Your task to perform on an android device: Search for "asus rog" on newegg, select the first entry, and add it to the cart. Image 0: 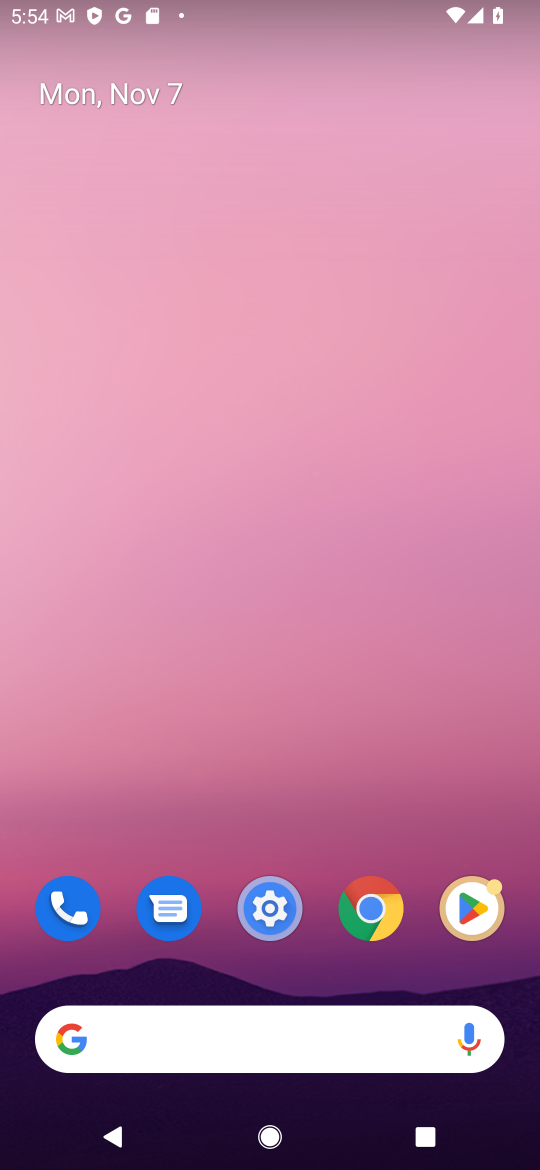
Step 0: click (253, 1036)
Your task to perform on an android device: Search for "asus rog" on newegg, select the first entry, and add it to the cart. Image 1: 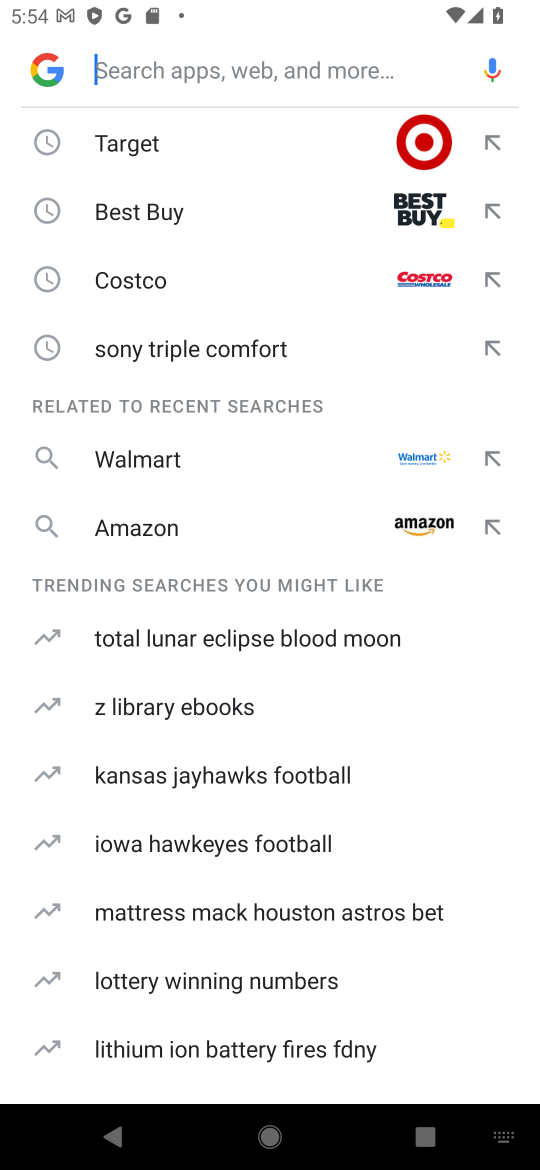
Step 1: type "asus rog"
Your task to perform on an android device: Search for "asus rog" on newegg, select the first entry, and add it to the cart. Image 2: 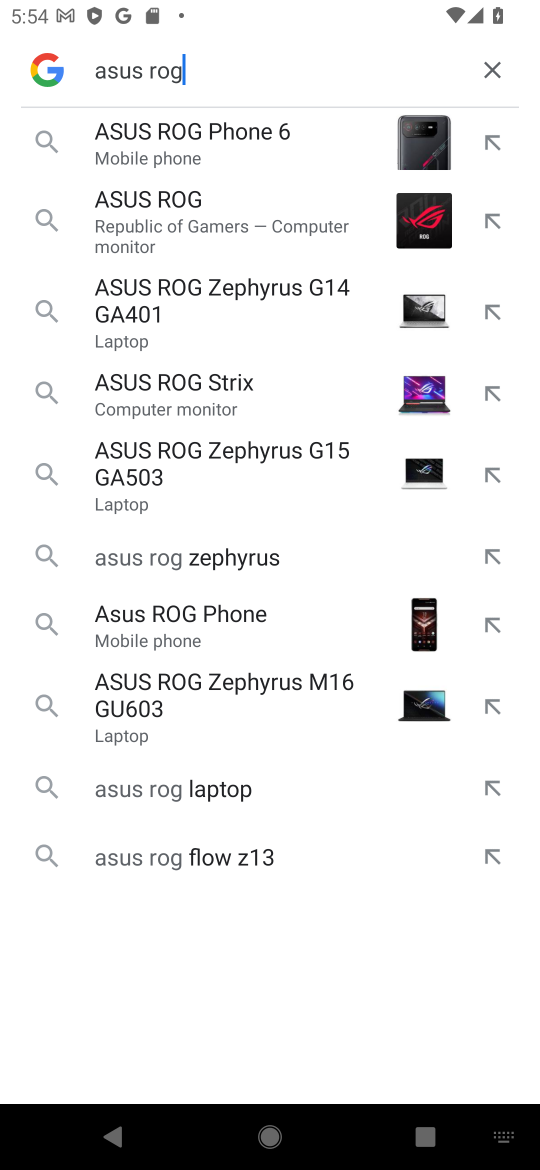
Step 2: click (256, 133)
Your task to perform on an android device: Search for "asus rog" on newegg, select the first entry, and add it to the cart. Image 3: 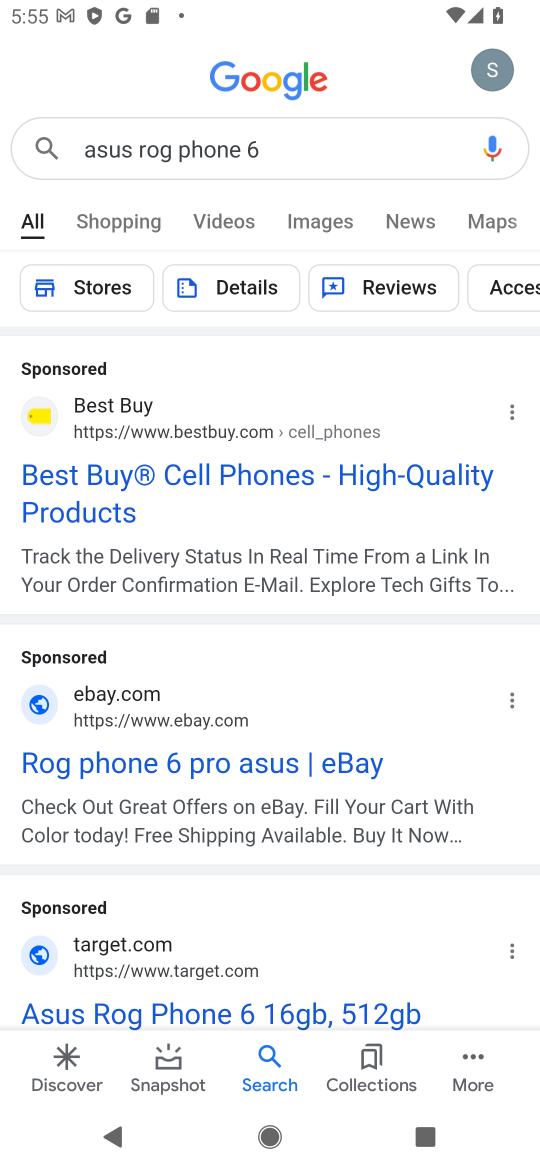
Step 3: click (100, 511)
Your task to perform on an android device: Search for "asus rog" on newegg, select the first entry, and add it to the cart. Image 4: 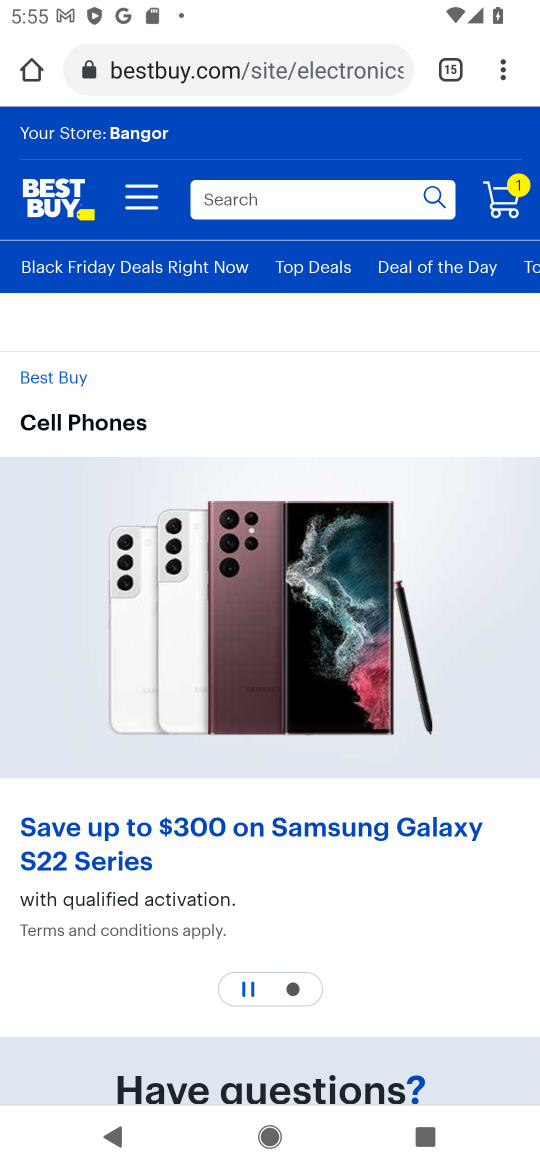
Step 4: click (242, 207)
Your task to perform on an android device: Search for "asus rog" on newegg, select the first entry, and add it to the cart. Image 5: 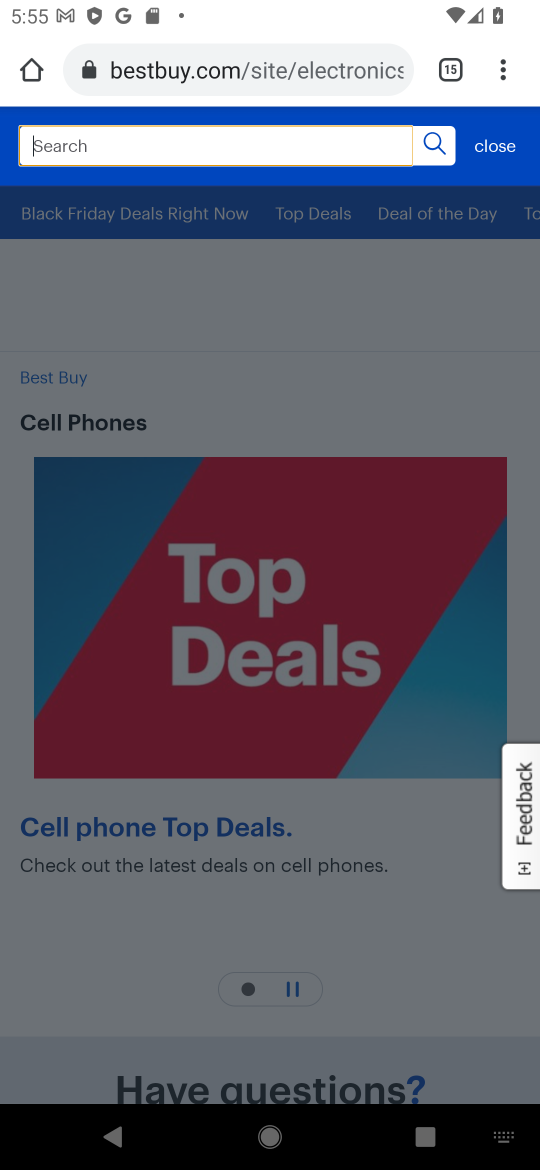
Step 5: type "aus rog"
Your task to perform on an android device: Search for "asus rog" on newegg, select the first entry, and add it to the cart. Image 6: 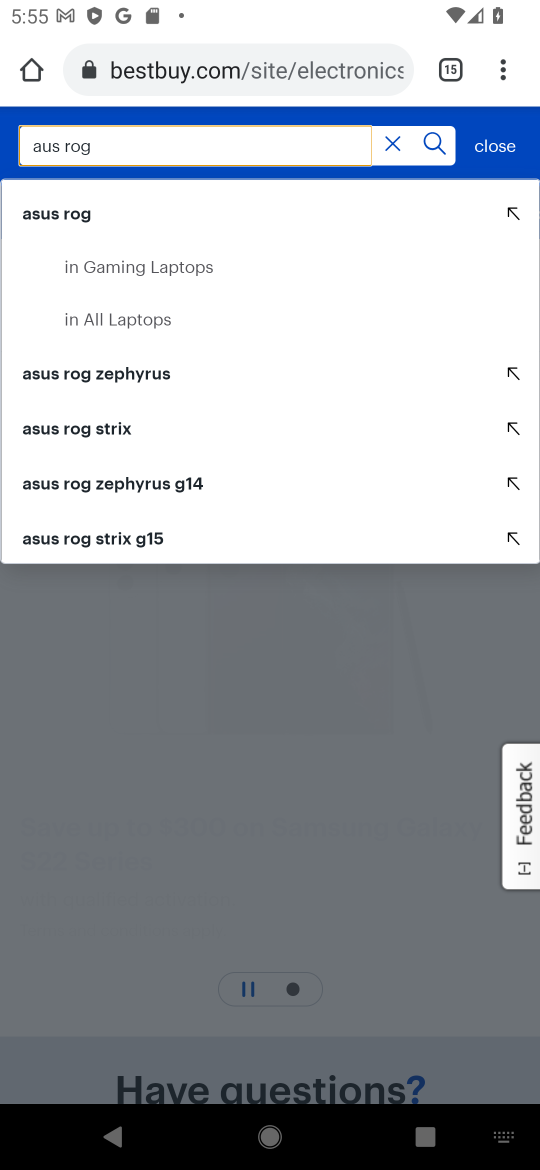
Step 6: click (116, 218)
Your task to perform on an android device: Search for "asus rog" on newegg, select the first entry, and add it to the cart. Image 7: 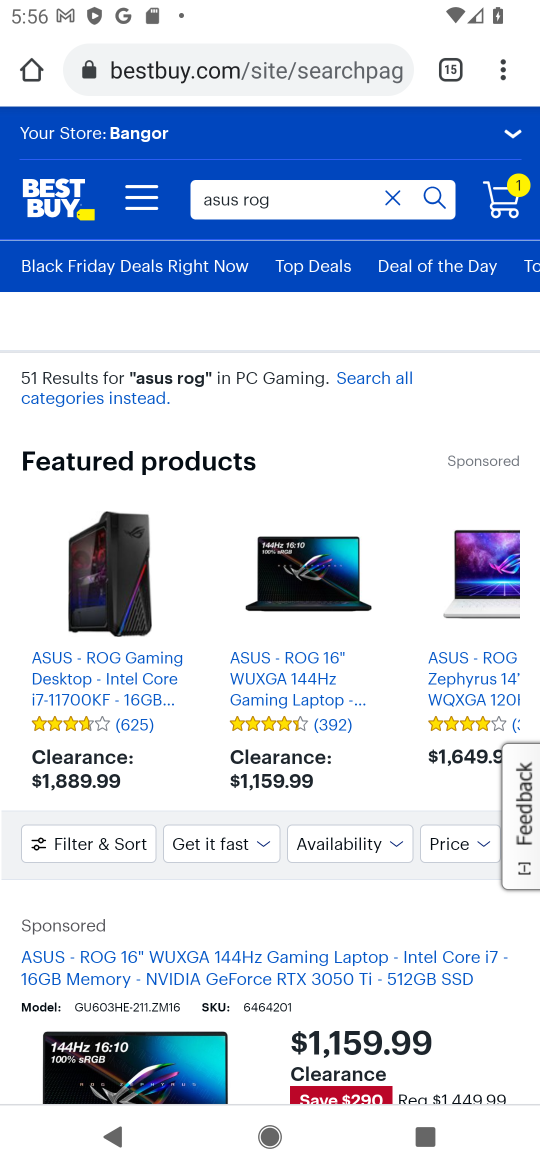
Step 7: task complete